Your task to perform on an android device: Open the web browser Image 0: 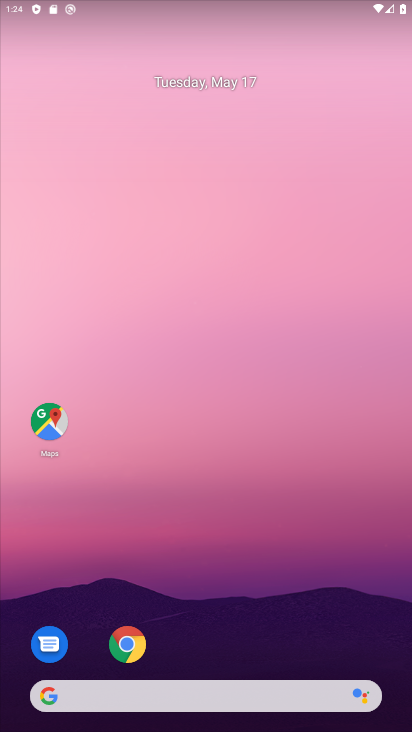
Step 0: click (112, 643)
Your task to perform on an android device: Open the web browser Image 1: 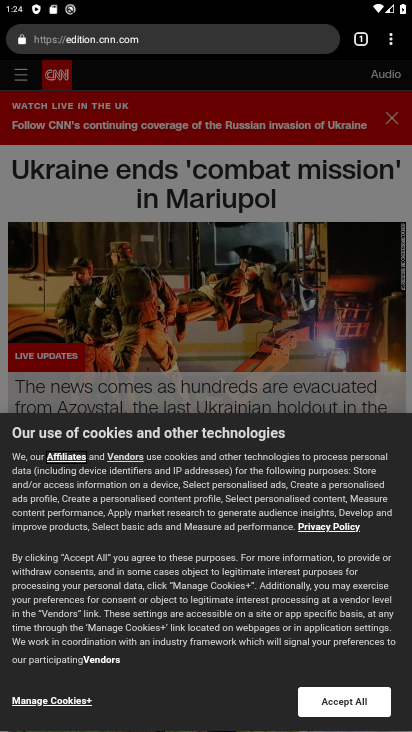
Step 1: task complete